Your task to perform on an android device: make emails show in primary in the gmail app Image 0: 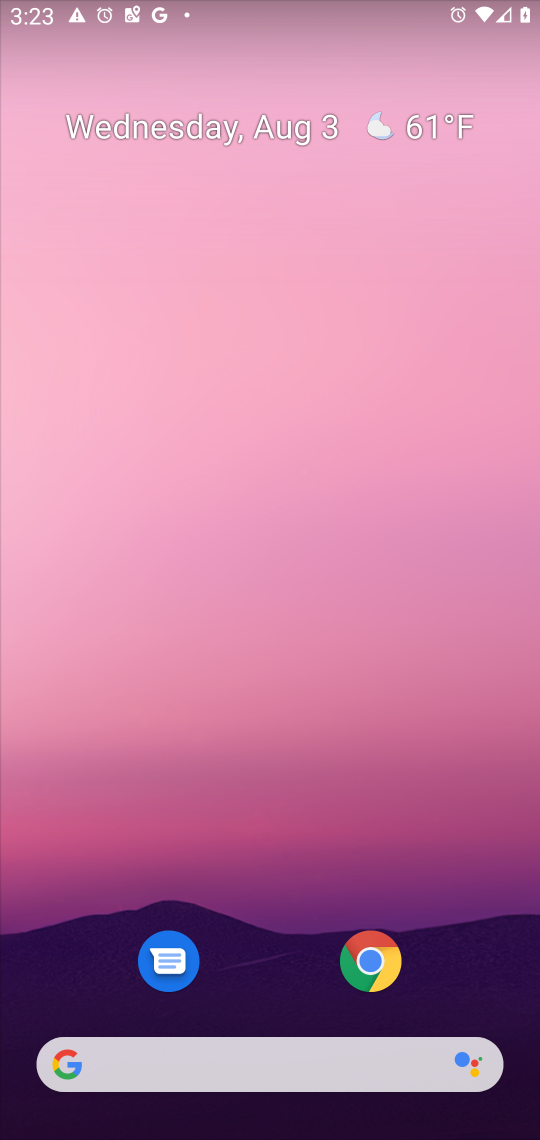
Step 0: drag from (279, 901) to (319, 27)
Your task to perform on an android device: make emails show in primary in the gmail app Image 1: 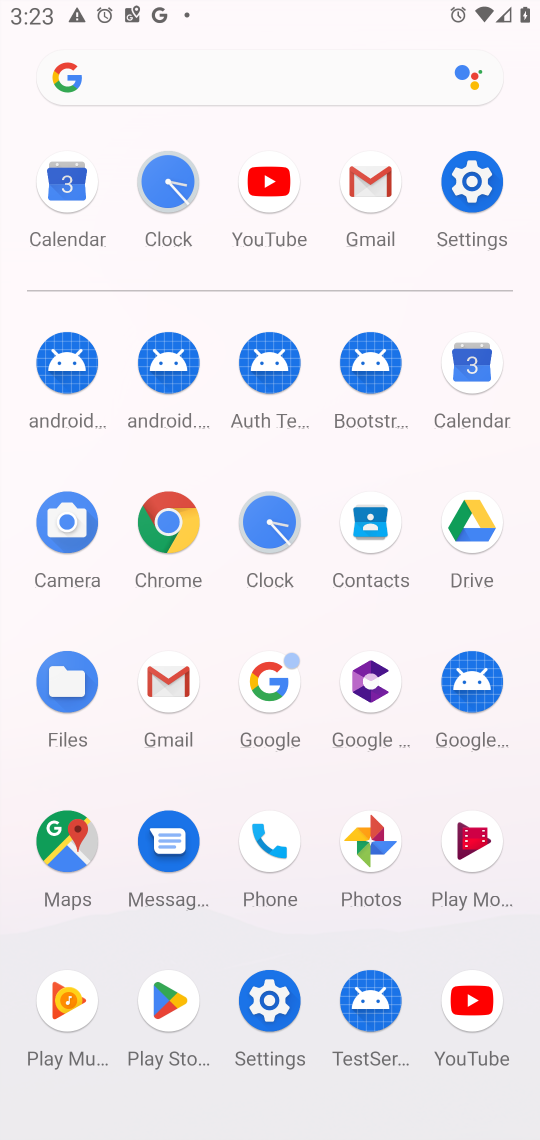
Step 1: click (368, 194)
Your task to perform on an android device: make emails show in primary in the gmail app Image 2: 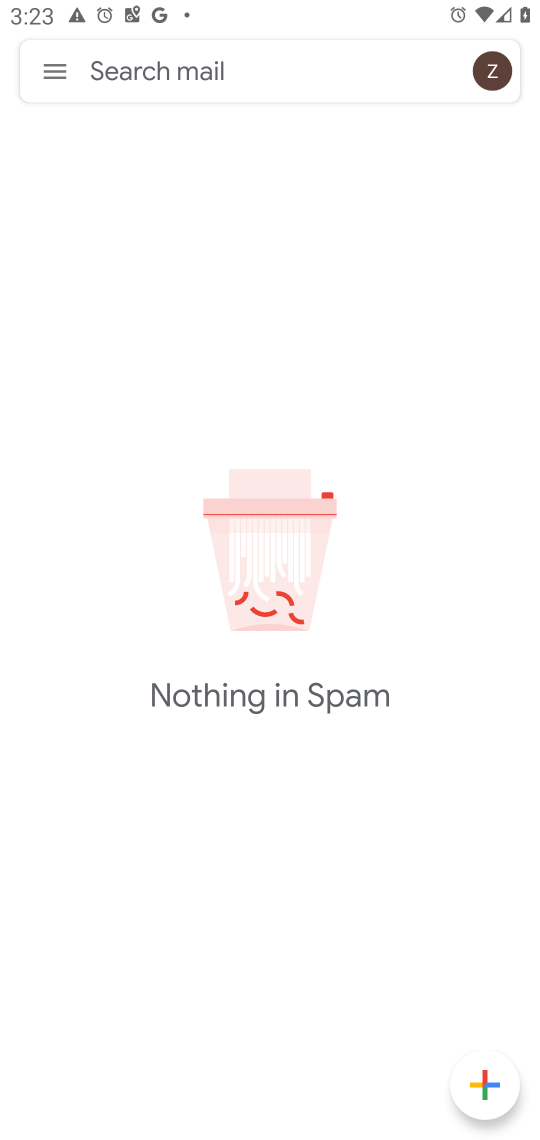
Step 2: click (46, 73)
Your task to perform on an android device: make emails show in primary in the gmail app Image 3: 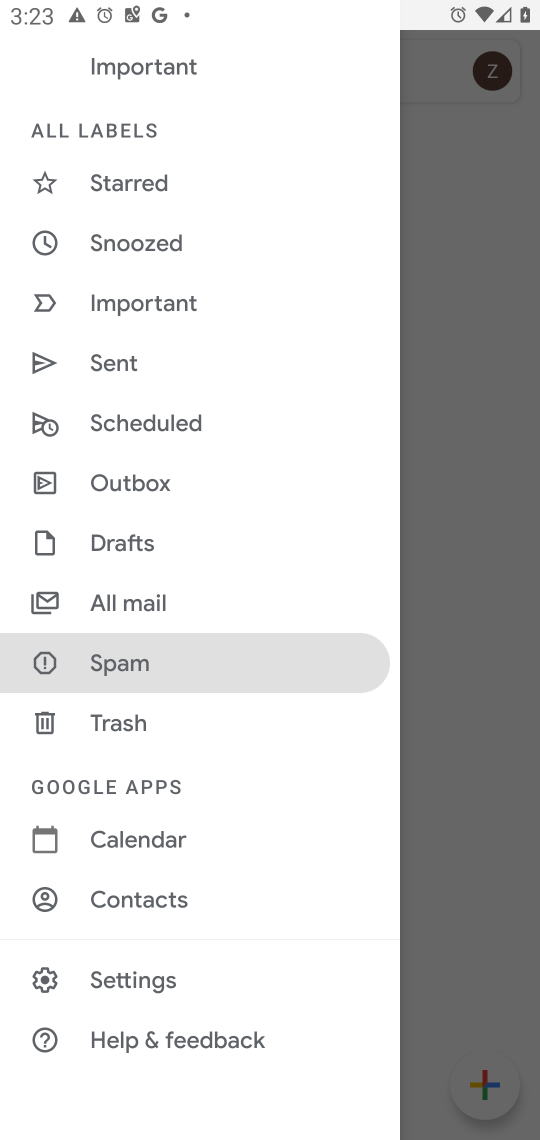
Step 3: click (167, 986)
Your task to perform on an android device: make emails show in primary in the gmail app Image 4: 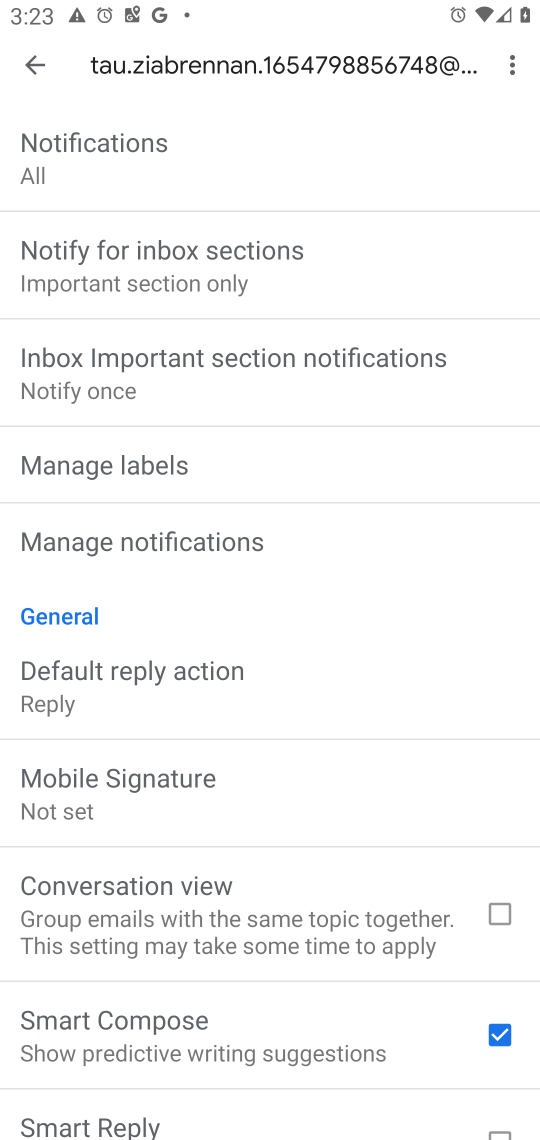
Step 4: task complete